Your task to perform on an android device: turn off airplane mode Image 0: 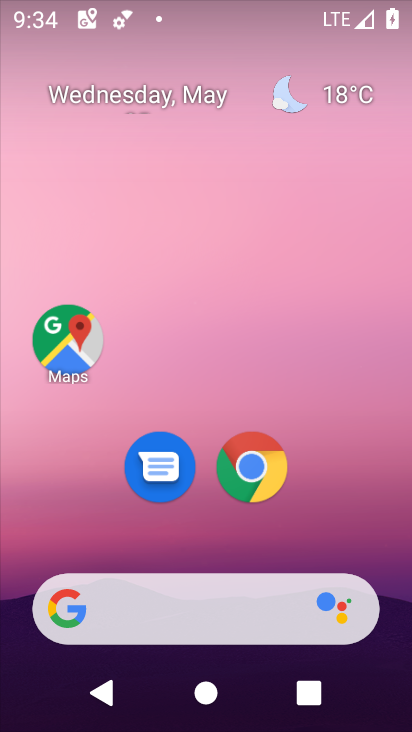
Step 0: drag from (313, 504) to (391, 100)
Your task to perform on an android device: turn off airplane mode Image 1: 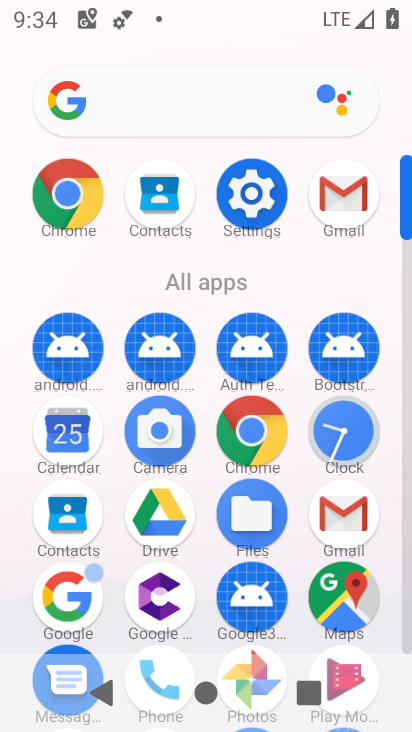
Step 1: click (265, 188)
Your task to perform on an android device: turn off airplane mode Image 2: 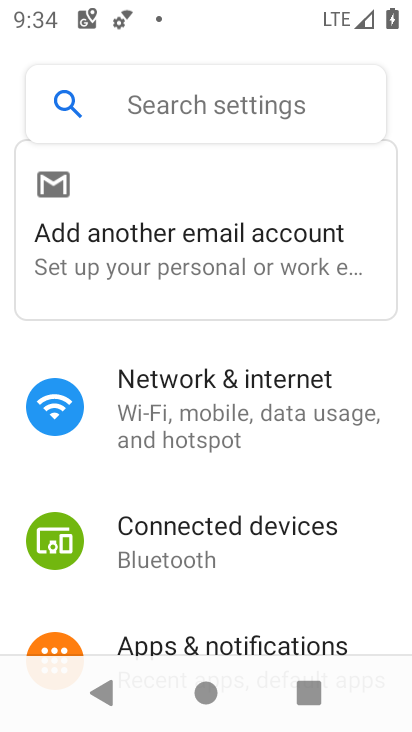
Step 2: click (245, 373)
Your task to perform on an android device: turn off airplane mode Image 3: 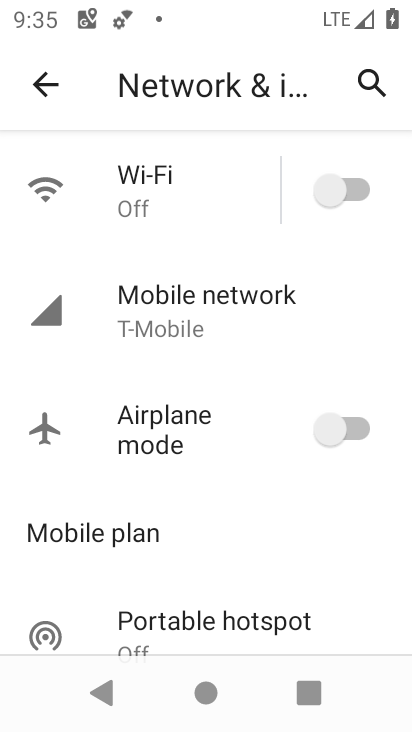
Step 3: task complete